Your task to perform on an android device: create a new album in the google photos Image 0: 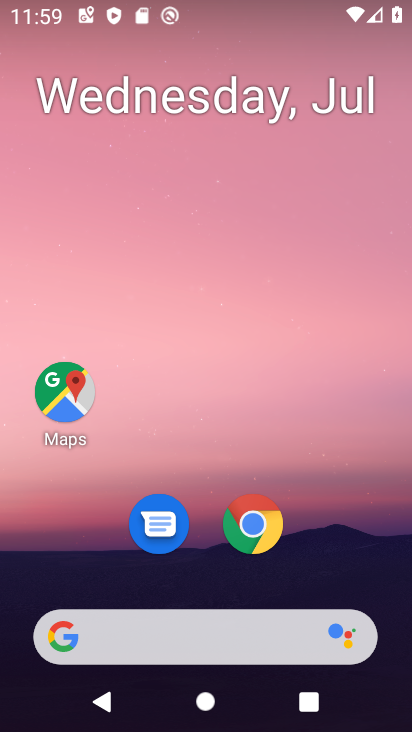
Step 0: press home button
Your task to perform on an android device: create a new album in the google photos Image 1: 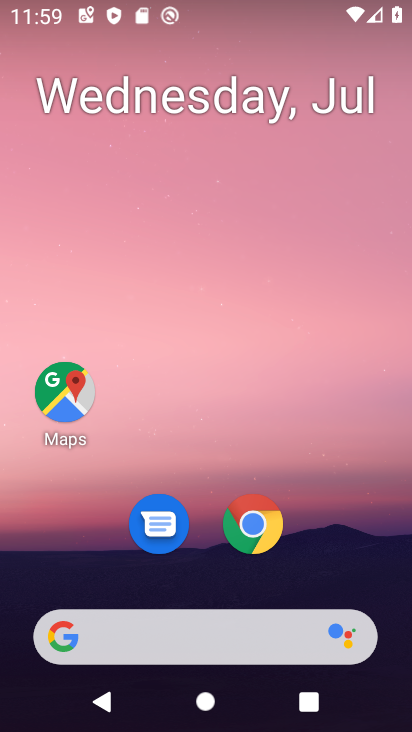
Step 1: drag from (228, 641) to (279, 148)
Your task to perform on an android device: create a new album in the google photos Image 2: 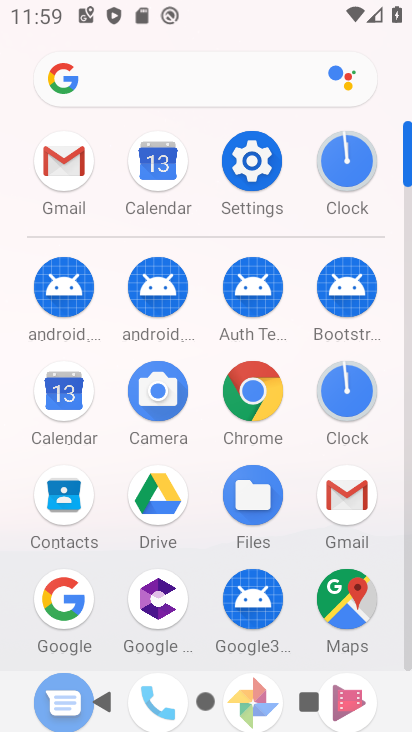
Step 2: drag from (190, 608) to (242, 203)
Your task to perform on an android device: create a new album in the google photos Image 3: 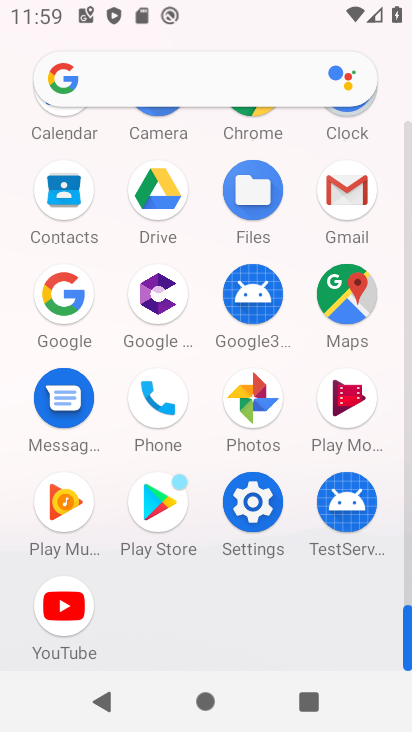
Step 3: click (260, 403)
Your task to perform on an android device: create a new album in the google photos Image 4: 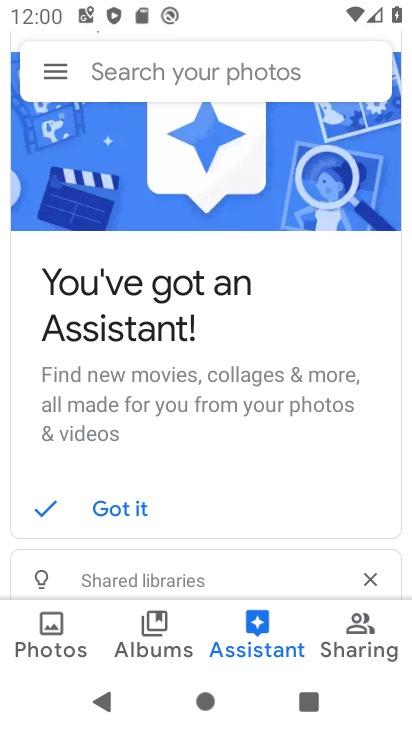
Step 4: click (152, 638)
Your task to perform on an android device: create a new album in the google photos Image 5: 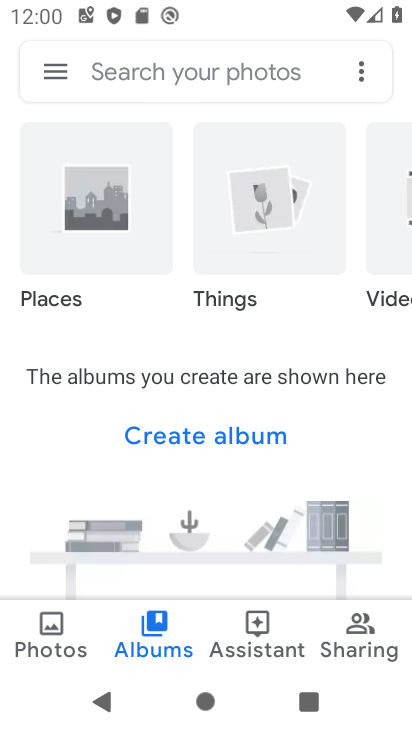
Step 5: task complete